Your task to perform on an android device: turn off improve location accuracy Image 0: 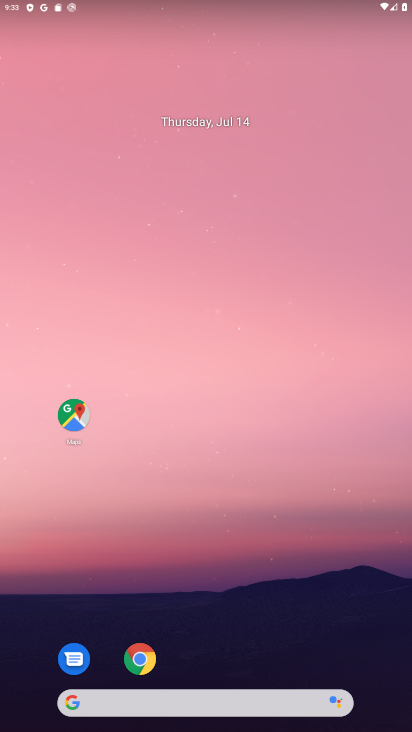
Step 0: drag from (325, 658) to (292, 143)
Your task to perform on an android device: turn off improve location accuracy Image 1: 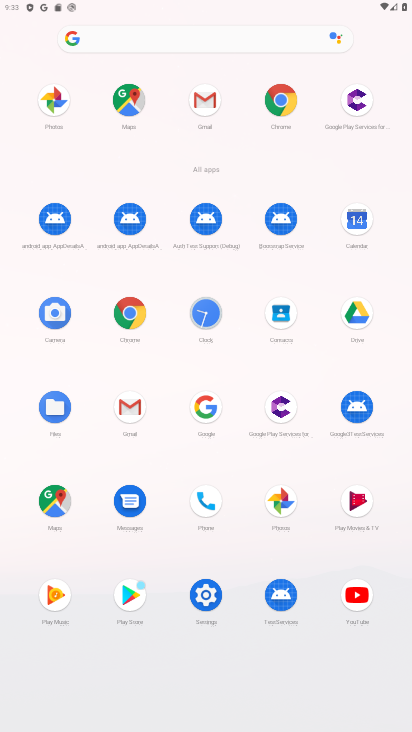
Step 1: click (208, 595)
Your task to perform on an android device: turn off improve location accuracy Image 2: 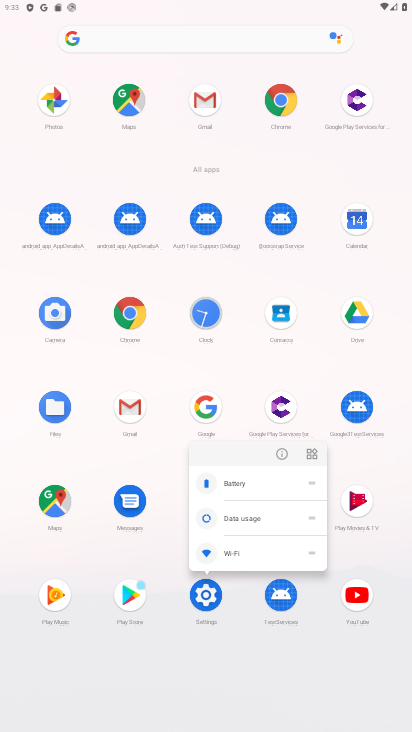
Step 2: click (207, 595)
Your task to perform on an android device: turn off improve location accuracy Image 3: 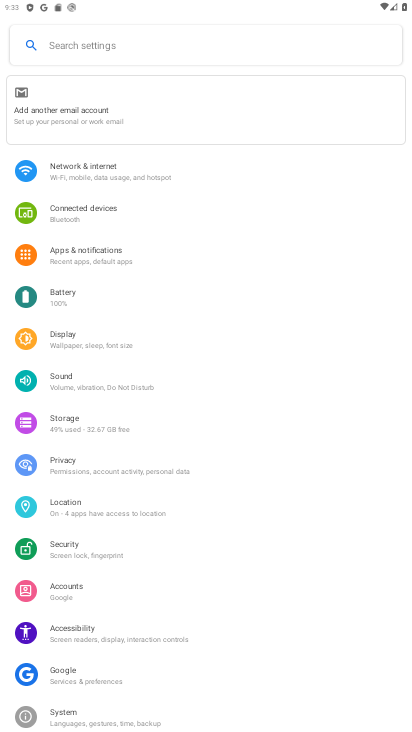
Step 3: click (61, 506)
Your task to perform on an android device: turn off improve location accuracy Image 4: 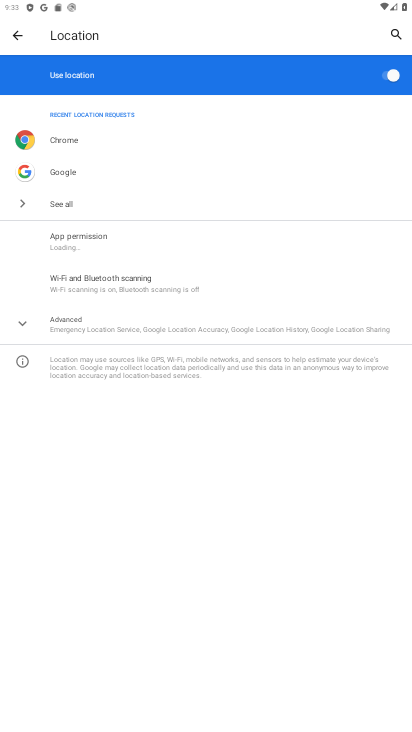
Step 4: click (135, 332)
Your task to perform on an android device: turn off improve location accuracy Image 5: 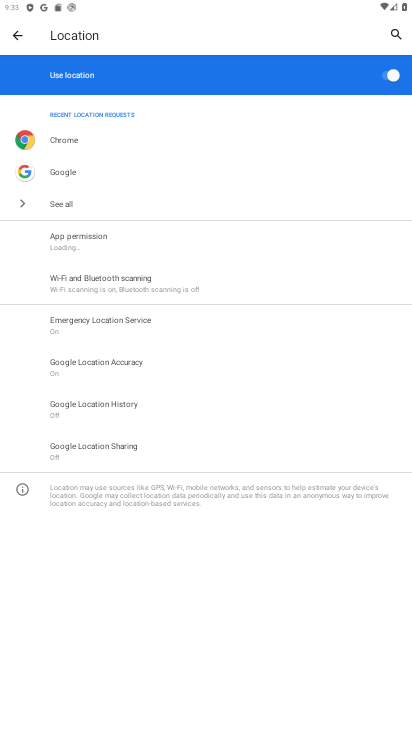
Step 5: click (128, 363)
Your task to perform on an android device: turn off improve location accuracy Image 6: 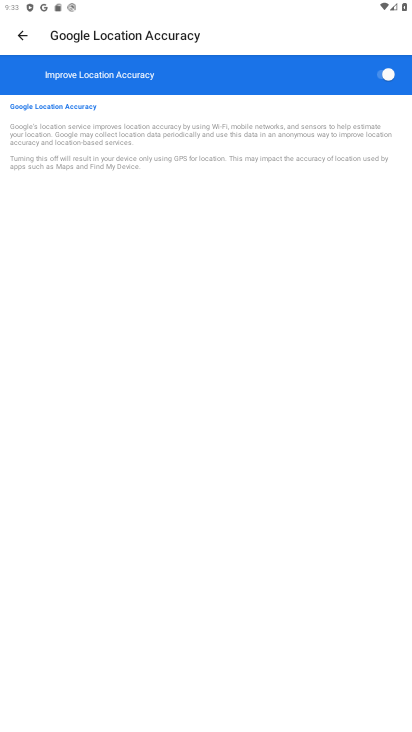
Step 6: click (388, 60)
Your task to perform on an android device: turn off improve location accuracy Image 7: 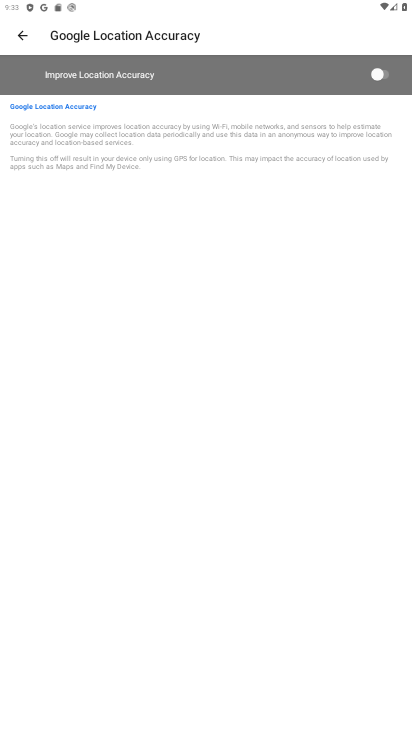
Step 7: task complete